Your task to perform on an android device: Open display settings Image 0: 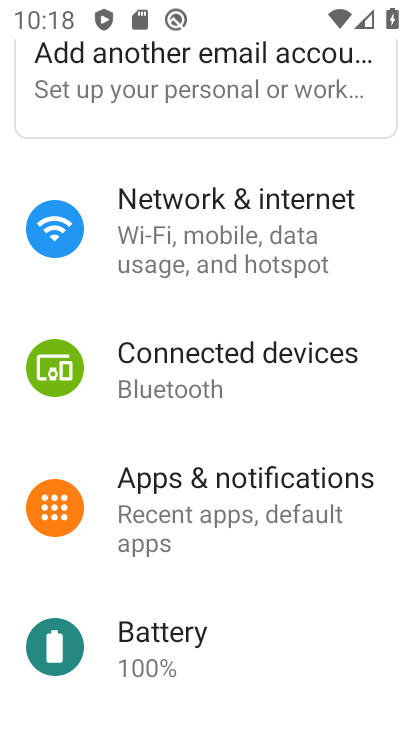
Step 0: drag from (186, 621) to (264, 221)
Your task to perform on an android device: Open display settings Image 1: 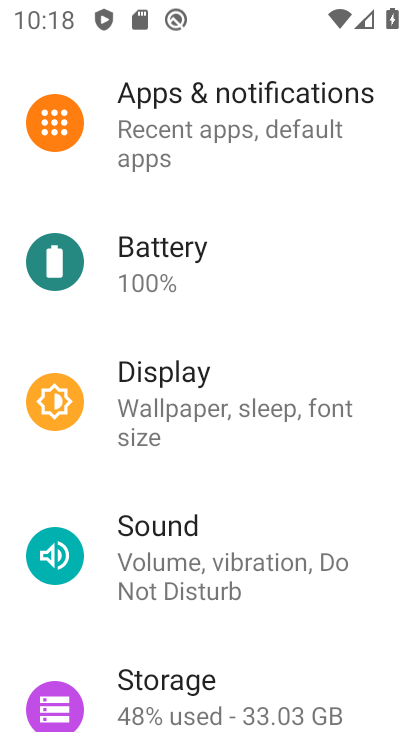
Step 1: click (220, 399)
Your task to perform on an android device: Open display settings Image 2: 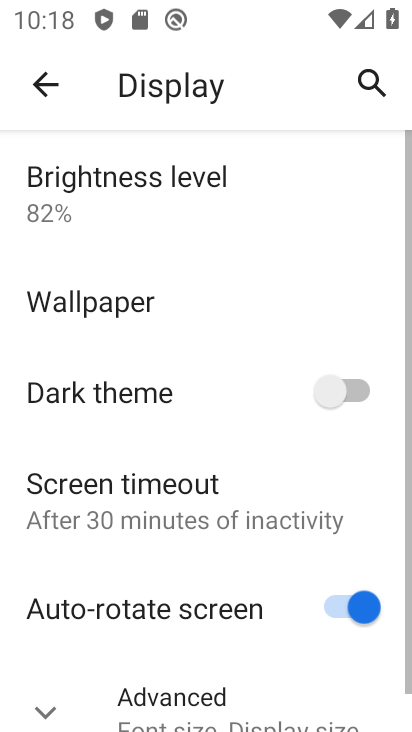
Step 2: task complete